Your task to perform on an android device: clear history in the chrome app Image 0: 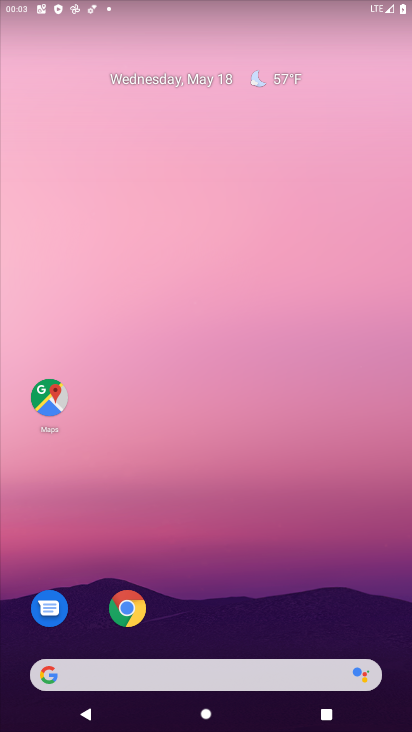
Step 0: click (126, 606)
Your task to perform on an android device: clear history in the chrome app Image 1: 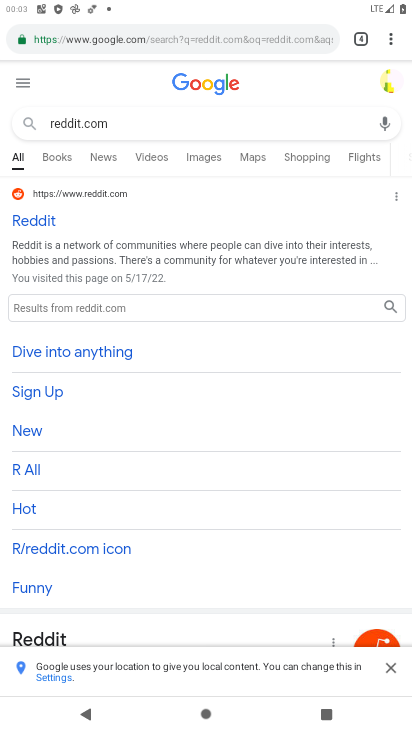
Step 1: click (393, 38)
Your task to perform on an android device: clear history in the chrome app Image 2: 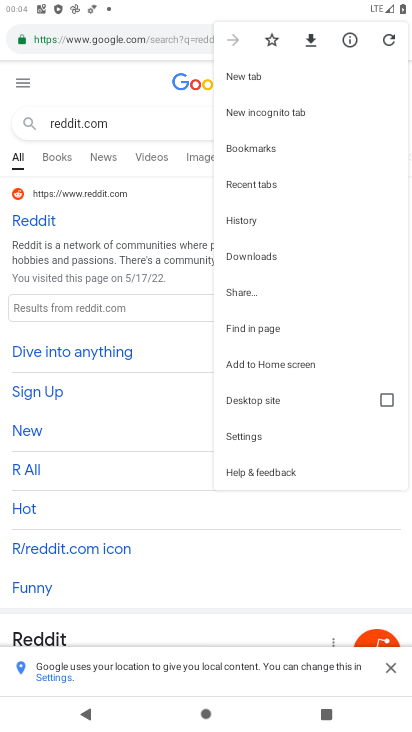
Step 2: click (238, 212)
Your task to perform on an android device: clear history in the chrome app Image 3: 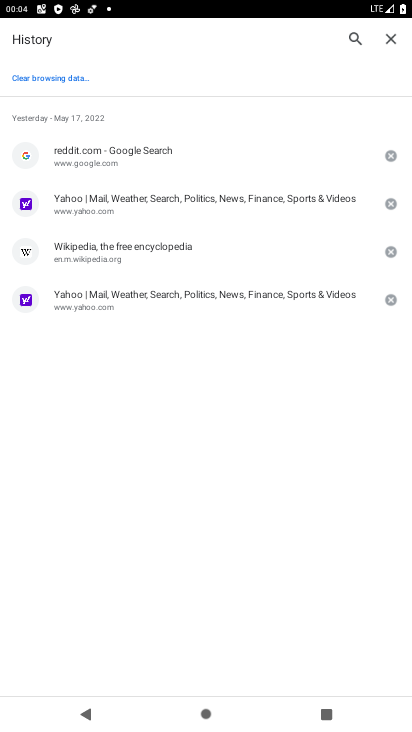
Step 3: click (26, 73)
Your task to perform on an android device: clear history in the chrome app Image 4: 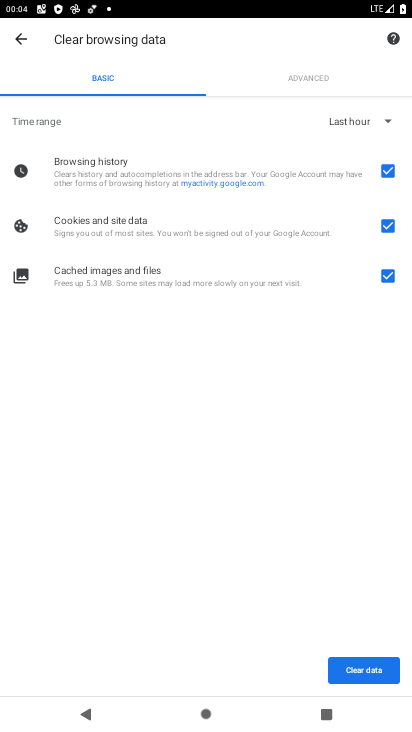
Step 4: click (362, 668)
Your task to perform on an android device: clear history in the chrome app Image 5: 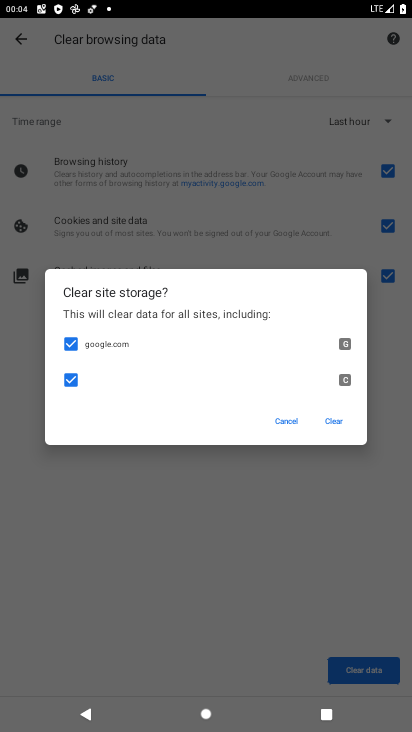
Step 5: click (329, 423)
Your task to perform on an android device: clear history in the chrome app Image 6: 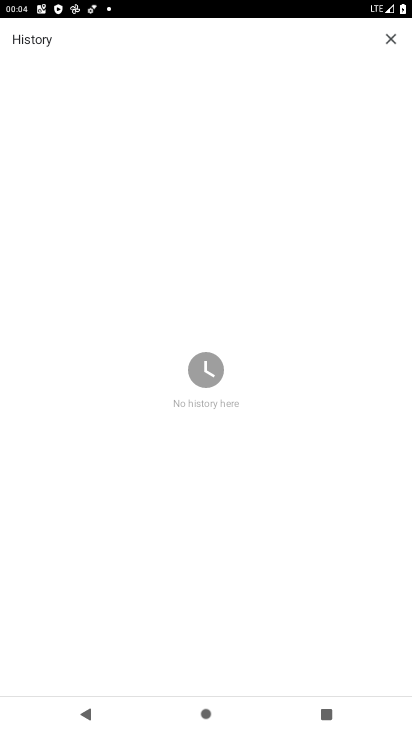
Step 6: task complete